Your task to perform on an android device: Search for seafood restaurants on Google Maps Image 0: 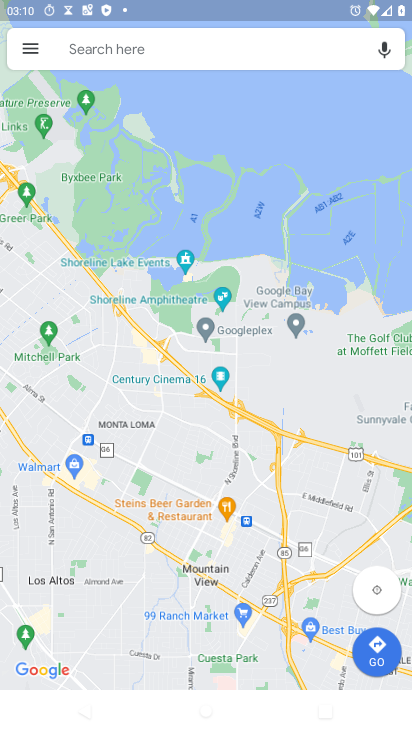
Step 0: press home button
Your task to perform on an android device: Search for seafood restaurants on Google Maps Image 1: 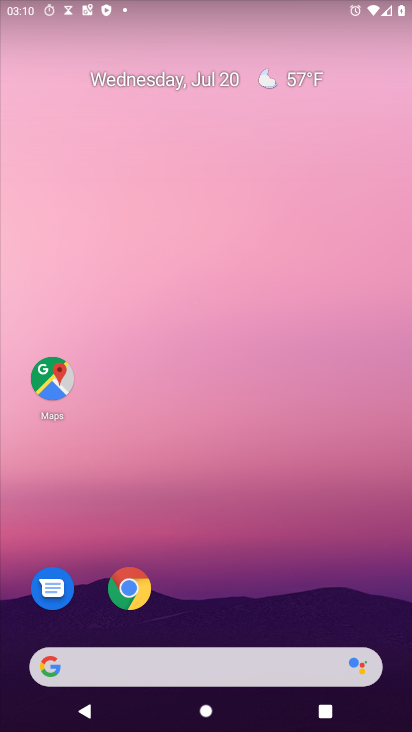
Step 1: drag from (283, 690) to (260, 47)
Your task to perform on an android device: Search for seafood restaurants on Google Maps Image 2: 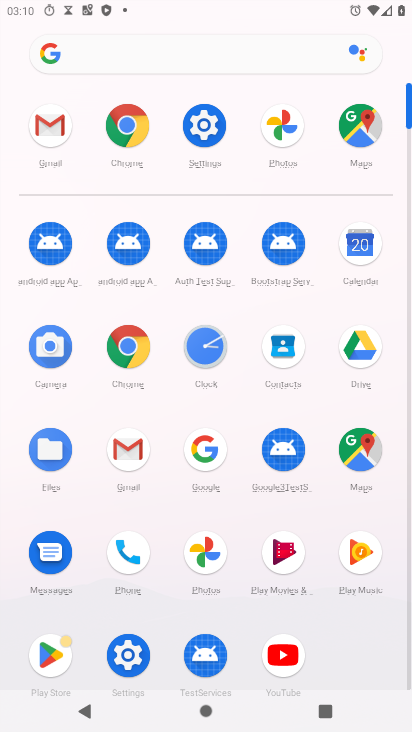
Step 2: click (349, 450)
Your task to perform on an android device: Search for seafood restaurants on Google Maps Image 3: 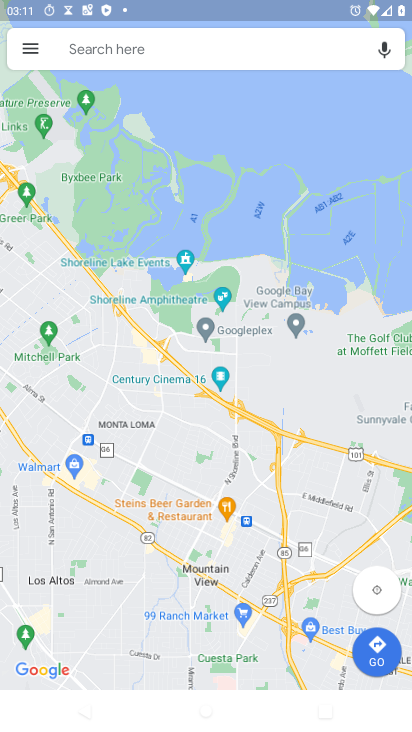
Step 3: click (173, 45)
Your task to perform on an android device: Search for seafood restaurants on Google Maps Image 4: 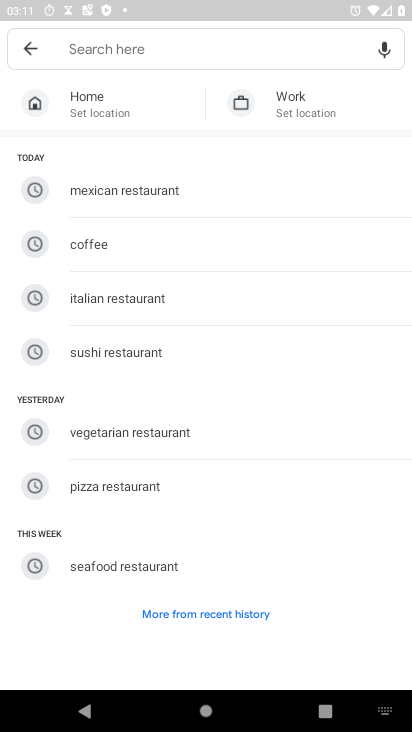
Step 4: click (120, 566)
Your task to perform on an android device: Search for seafood restaurants on Google Maps Image 5: 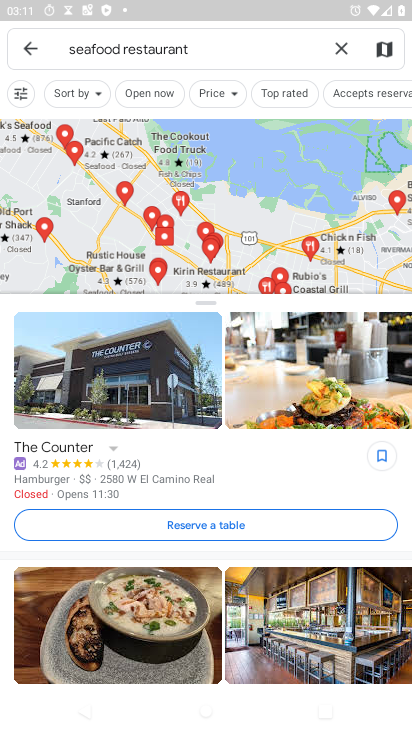
Step 5: task complete